Your task to perform on an android device: When is my next meeting? Image 0: 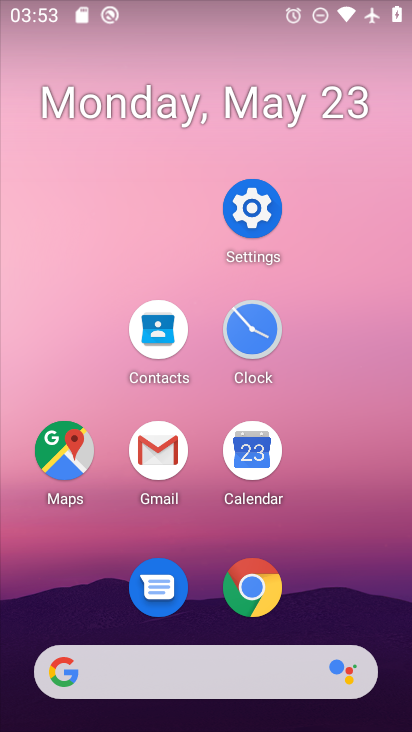
Step 0: click (248, 469)
Your task to perform on an android device: When is my next meeting? Image 1: 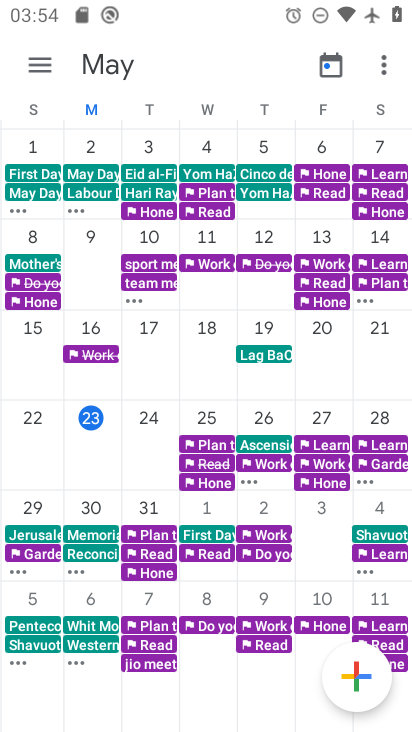
Step 1: task complete